Your task to perform on an android device: open app "HBO Max: Stream TV & Movies" (install if not already installed) and enter user name: "faring@outlook.com" and password: "appropriately" Image 0: 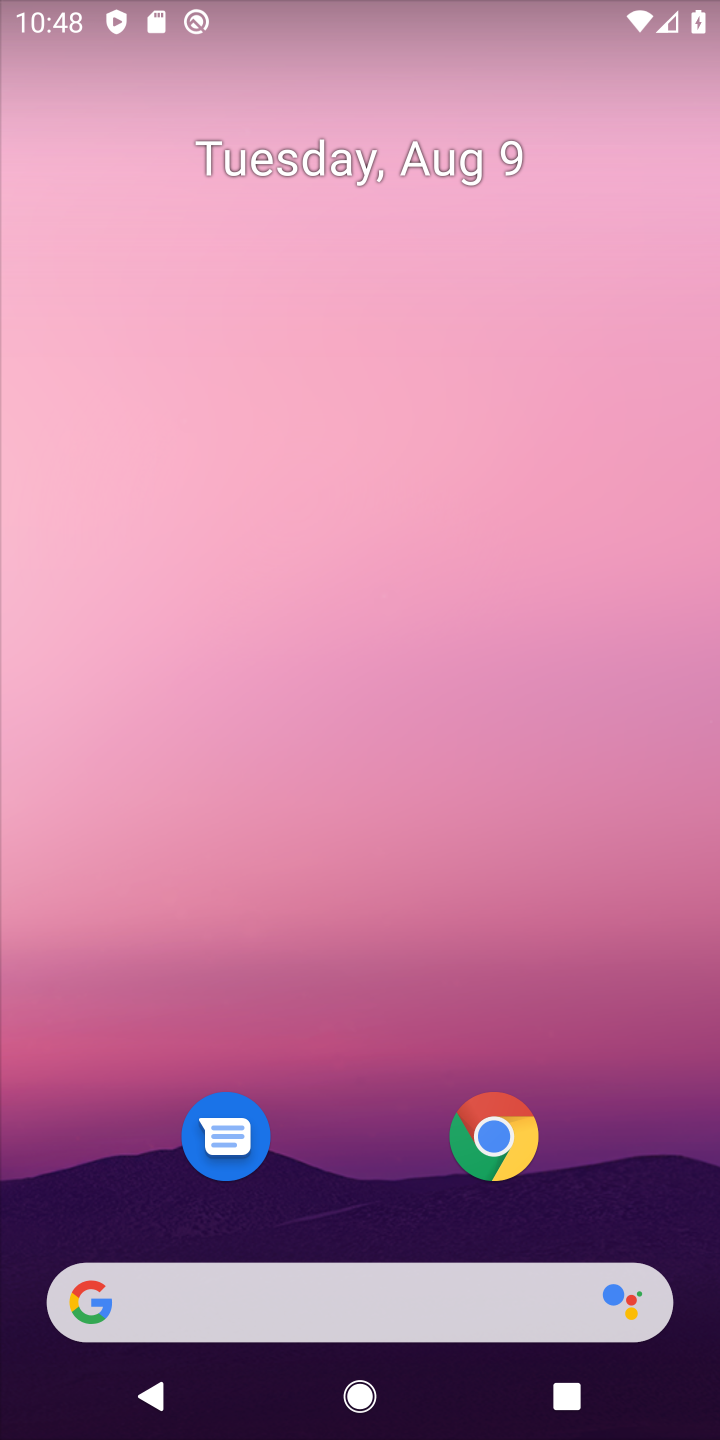
Step 0: press home button
Your task to perform on an android device: open app "HBO Max: Stream TV & Movies" (install if not already installed) and enter user name: "faring@outlook.com" and password: "appropriately" Image 1: 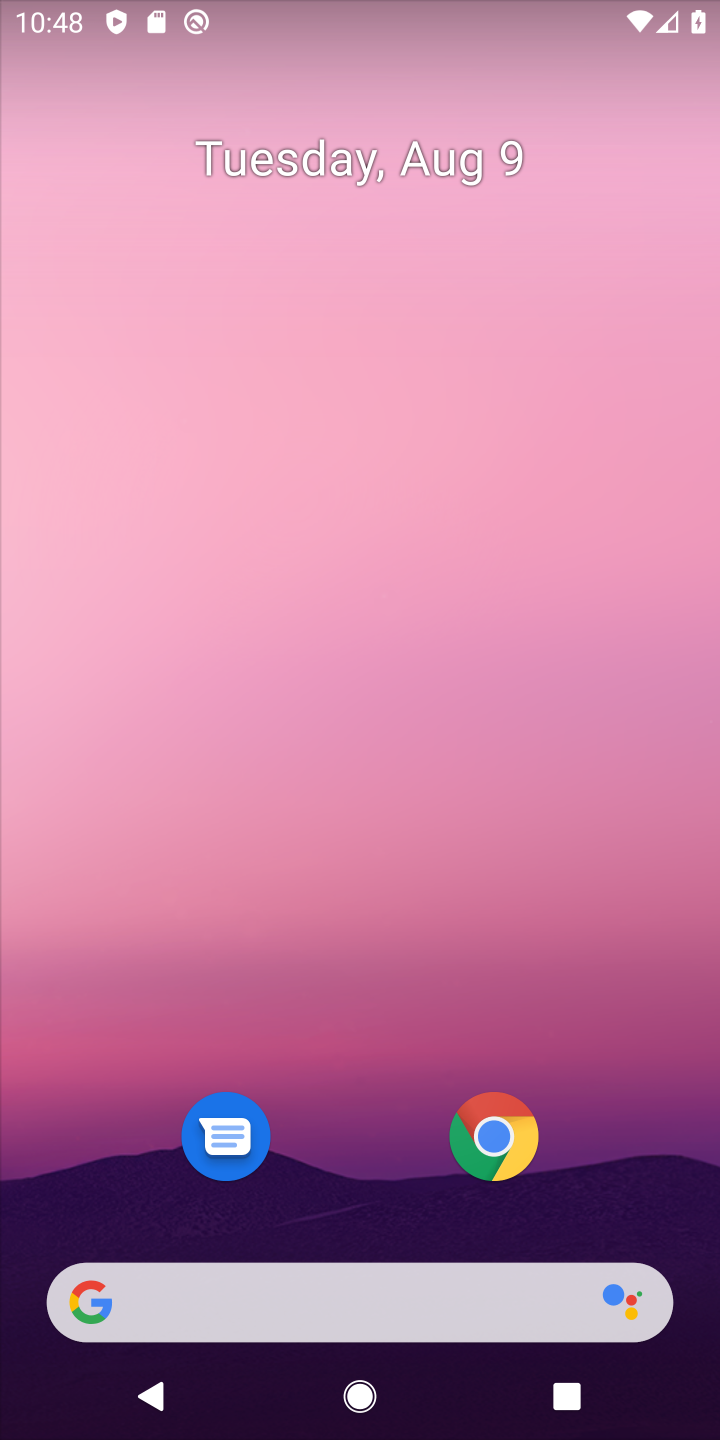
Step 1: drag from (355, 1199) to (408, 222)
Your task to perform on an android device: open app "HBO Max: Stream TV & Movies" (install if not already installed) and enter user name: "faring@outlook.com" and password: "appropriately" Image 2: 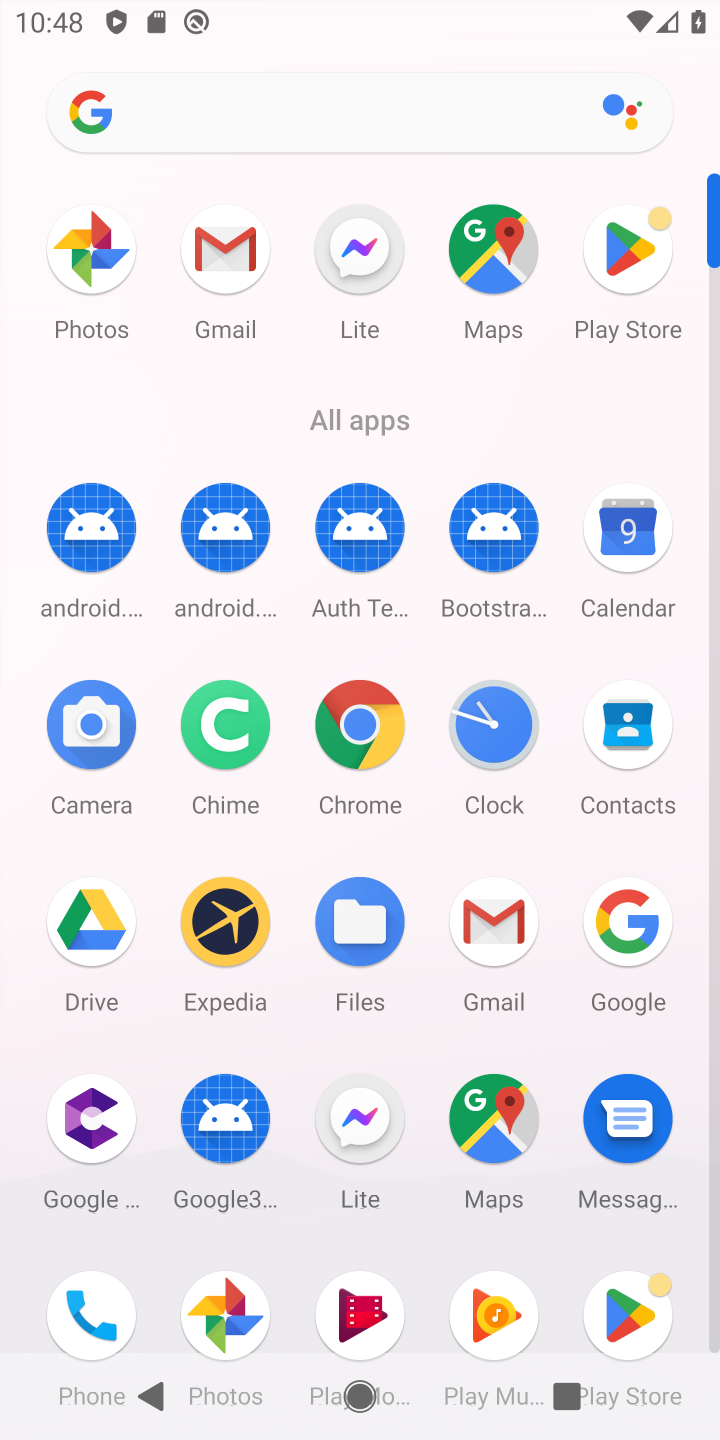
Step 2: click (645, 284)
Your task to perform on an android device: open app "HBO Max: Stream TV & Movies" (install if not already installed) and enter user name: "faring@outlook.com" and password: "appropriately" Image 3: 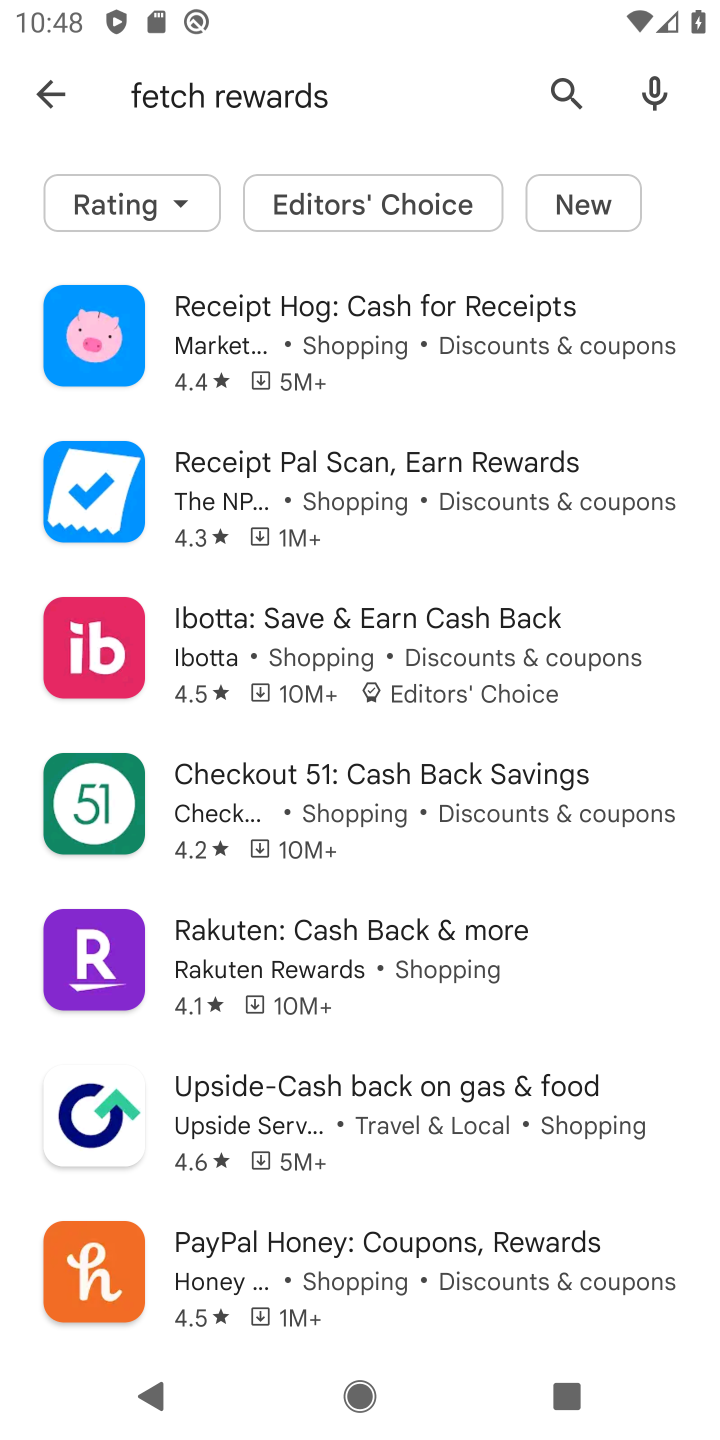
Step 3: click (297, 100)
Your task to perform on an android device: open app "HBO Max: Stream TV & Movies" (install if not already installed) and enter user name: "faring@outlook.com" and password: "appropriately" Image 4: 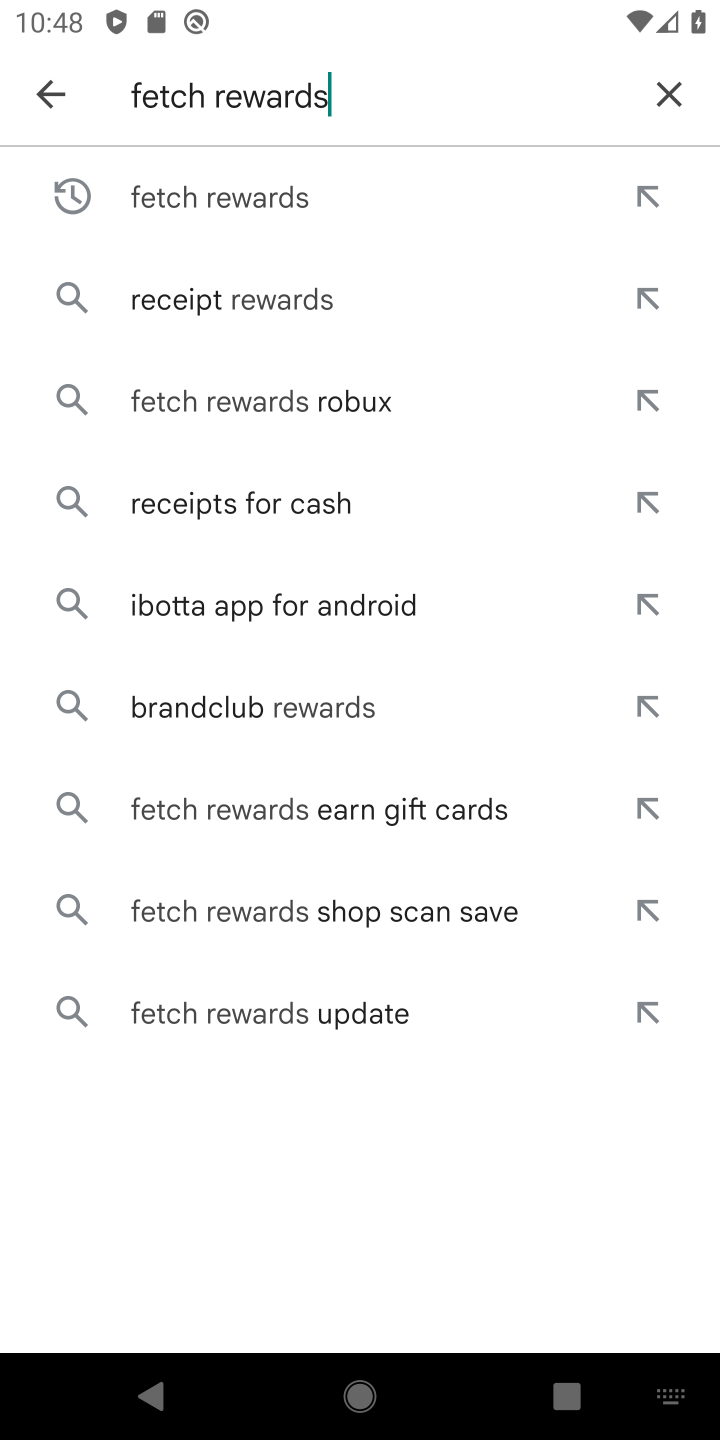
Step 4: click (667, 81)
Your task to perform on an android device: open app "HBO Max: Stream TV & Movies" (install if not already installed) and enter user name: "faring@outlook.com" and password: "appropriately" Image 5: 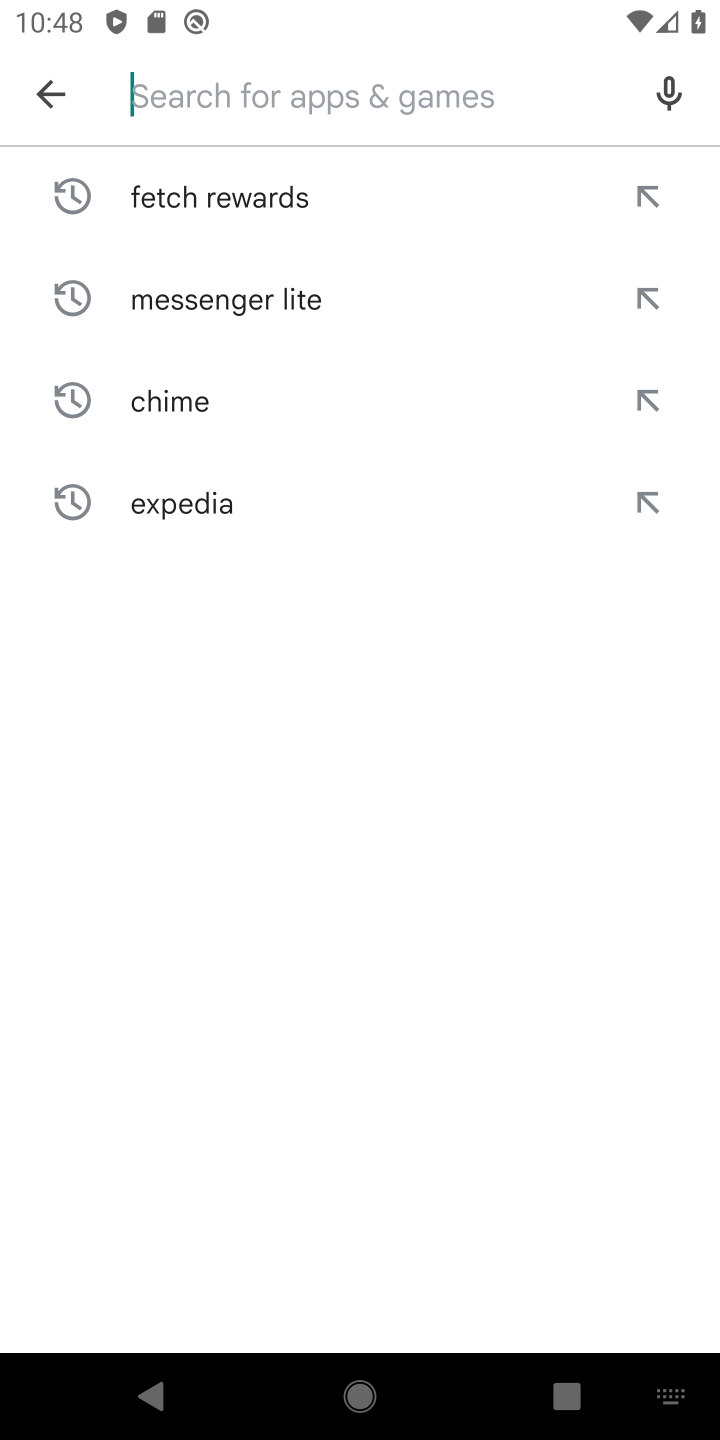
Step 5: type "HBO Max"
Your task to perform on an android device: open app "HBO Max: Stream TV & Movies" (install if not already installed) and enter user name: "faring@outlook.com" and password: "appropriately" Image 6: 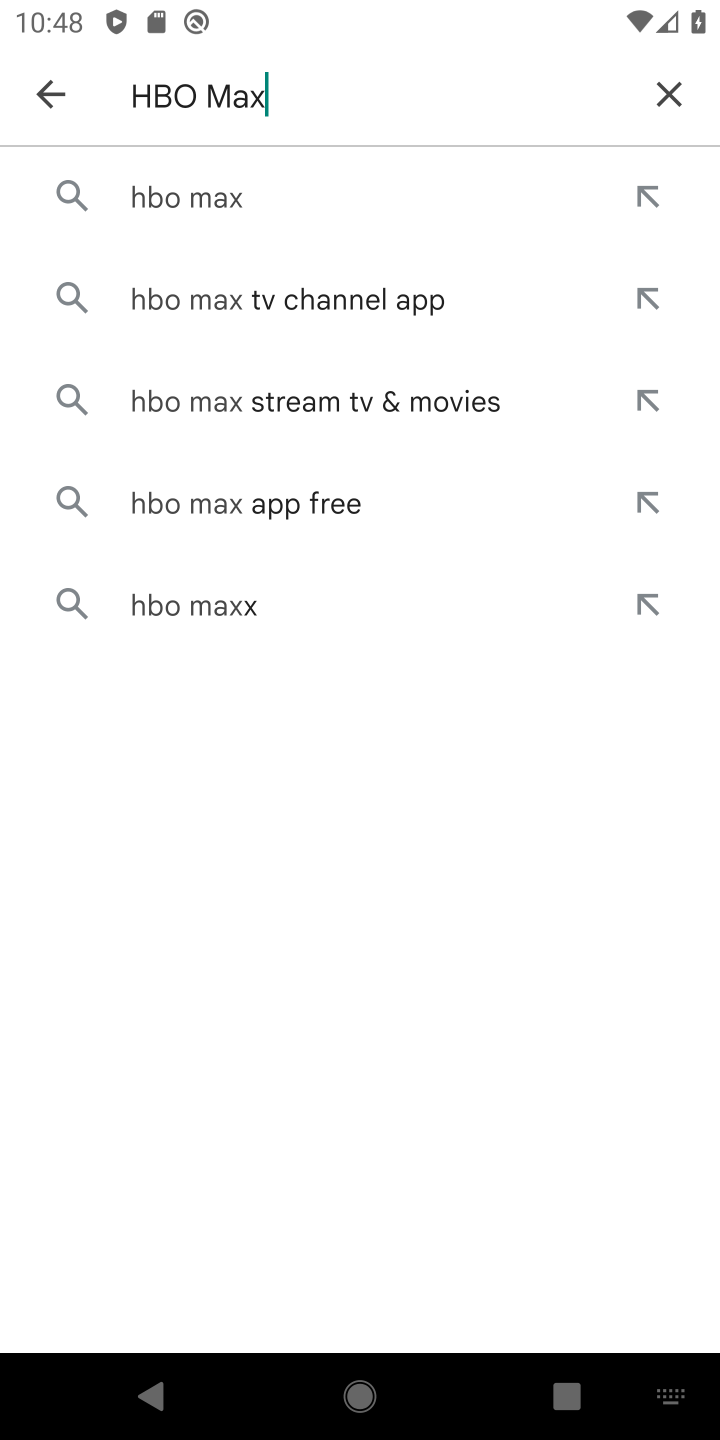
Step 6: click (279, 411)
Your task to perform on an android device: open app "HBO Max: Stream TV & Movies" (install if not already installed) and enter user name: "faring@outlook.com" and password: "appropriately" Image 7: 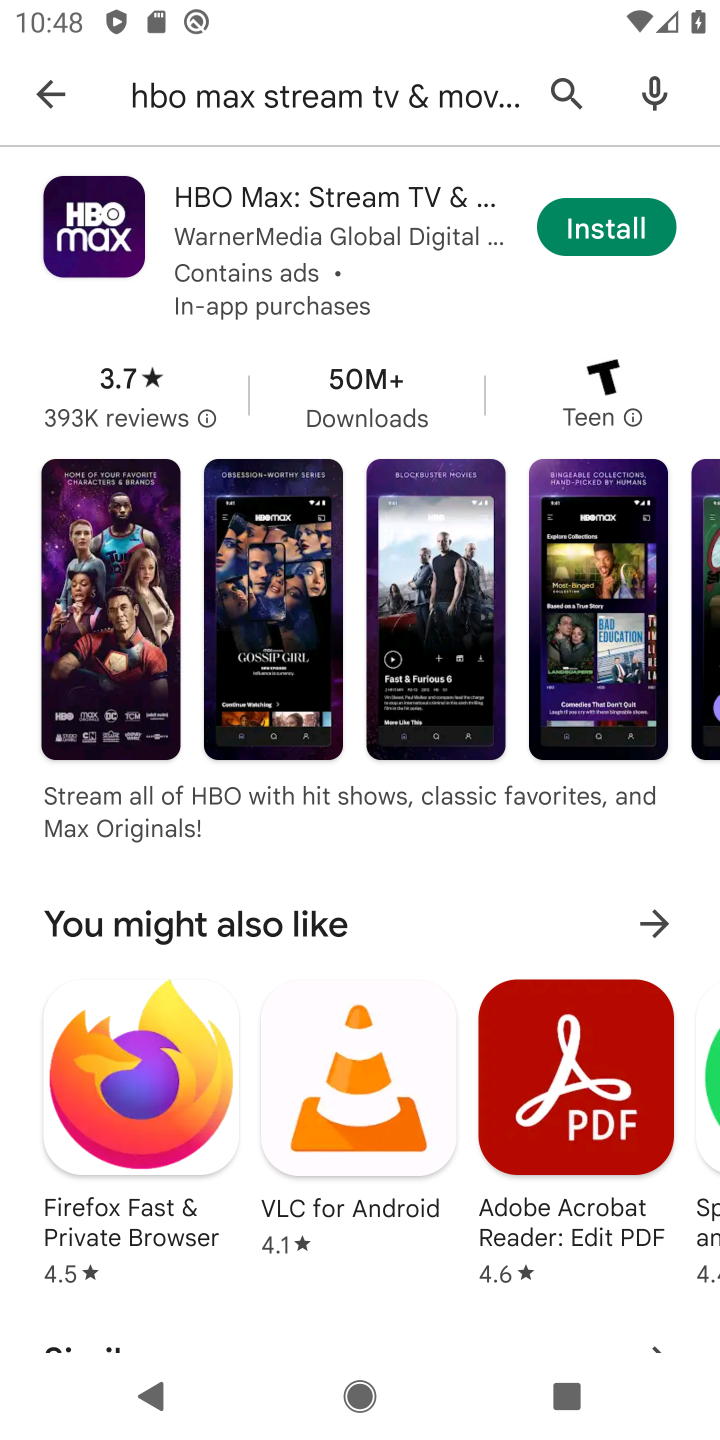
Step 7: click (596, 225)
Your task to perform on an android device: open app "HBO Max: Stream TV & Movies" (install if not already installed) and enter user name: "faring@outlook.com" and password: "appropriately" Image 8: 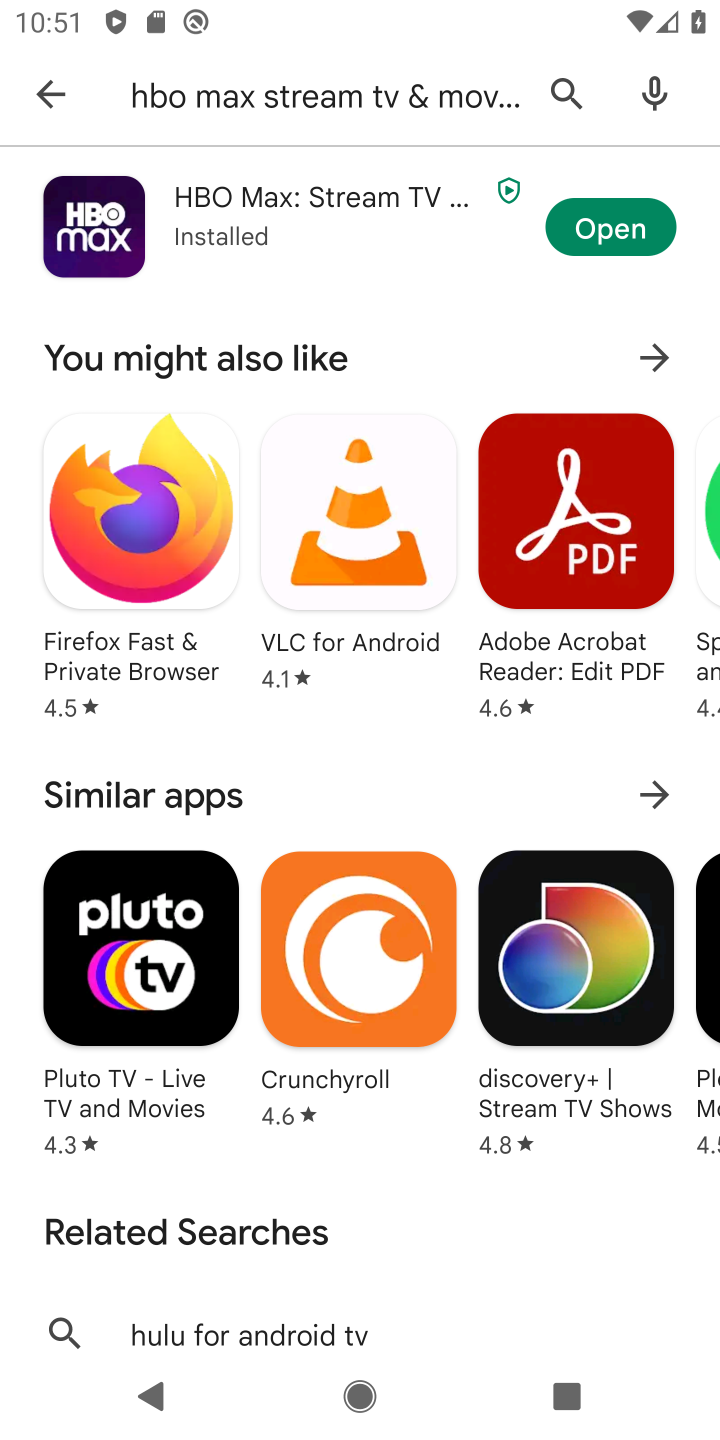
Step 8: click (648, 237)
Your task to perform on an android device: open app "HBO Max: Stream TV & Movies" (install if not already installed) and enter user name: "faring@outlook.com" and password: "appropriately" Image 9: 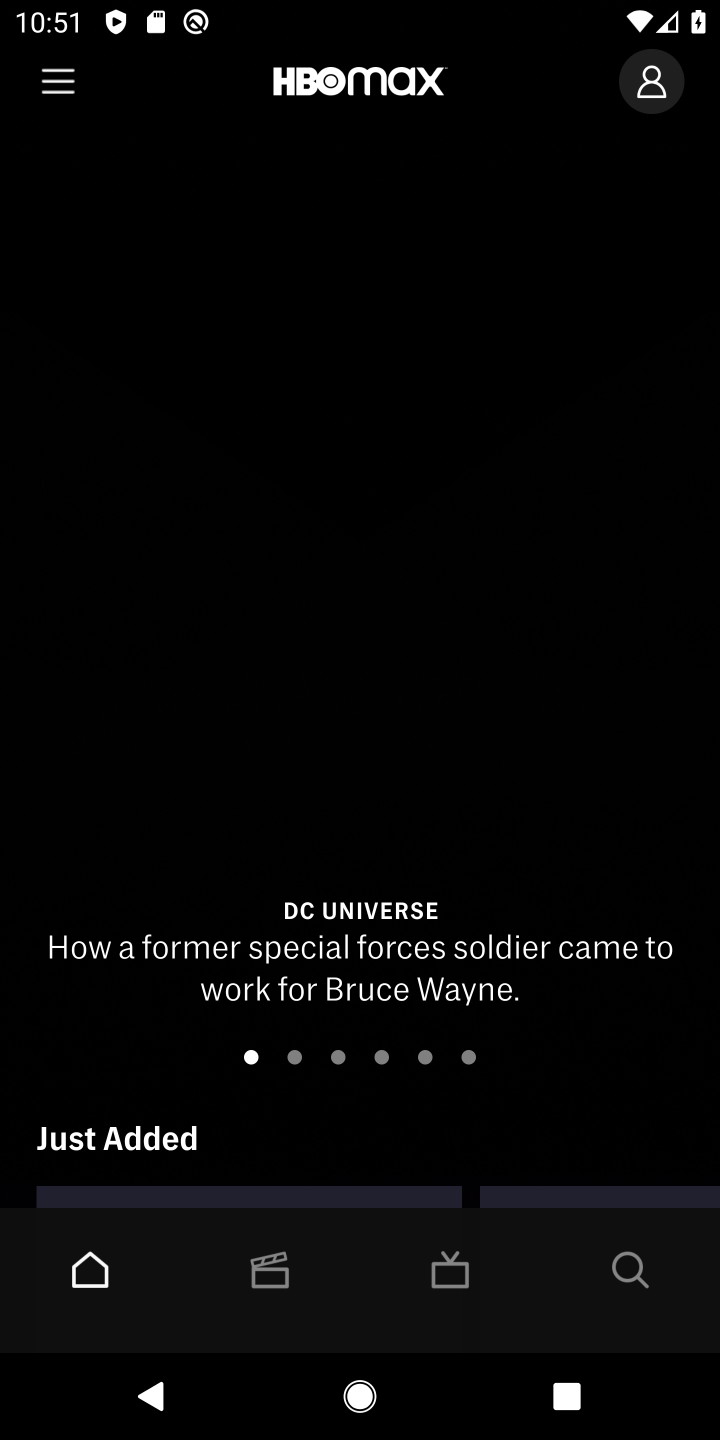
Step 9: drag from (380, 1088) to (411, 703)
Your task to perform on an android device: open app "HBO Max: Stream TV & Movies" (install if not already installed) and enter user name: "faring@outlook.com" and password: "appropriately" Image 10: 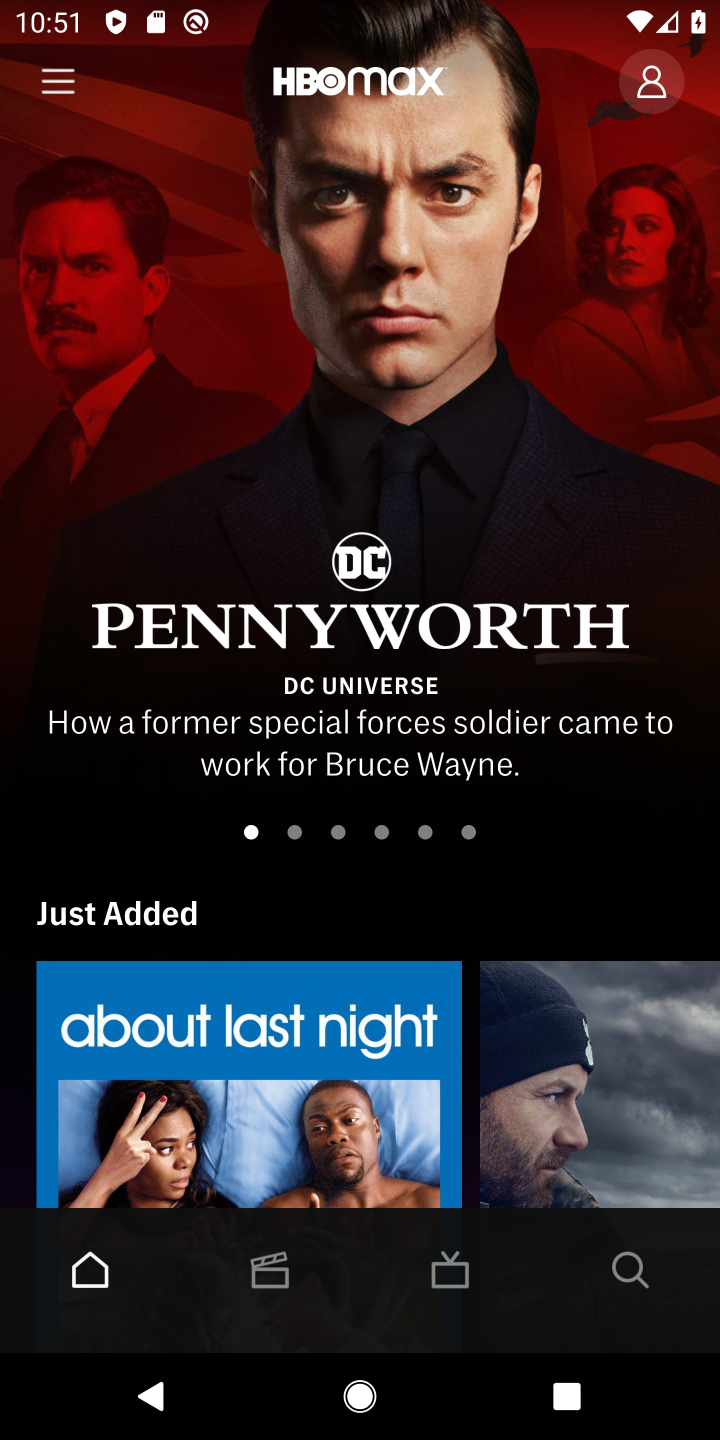
Step 10: click (661, 83)
Your task to perform on an android device: open app "HBO Max: Stream TV & Movies" (install if not already installed) and enter user name: "faring@outlook.com" and password: "appropriately" Image 11: 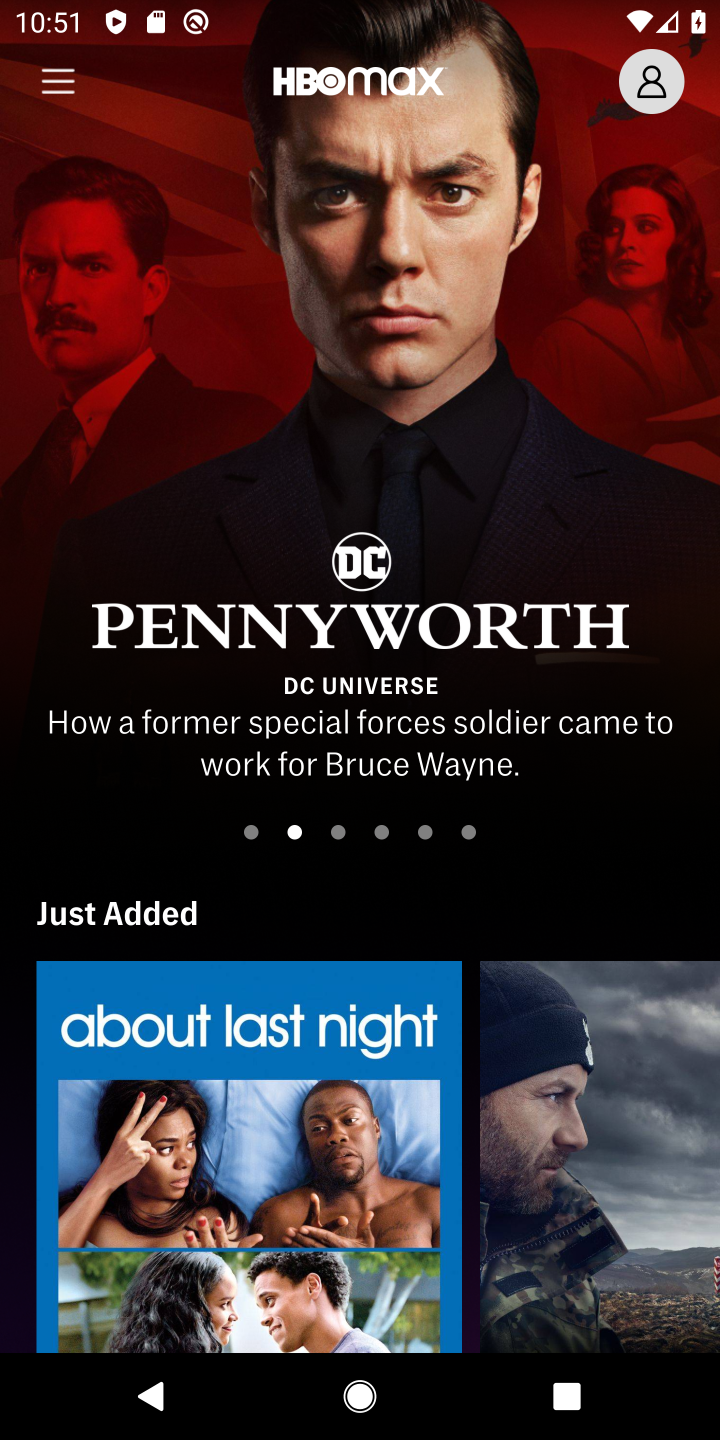
Step 11: click (663, 77)
Your task to perform on an android device: open app "HBO Max: Stream TV & Movies" (install if not already installed) and enter user name: "faring@outlook.com" and password: "appropriately" Image 12: 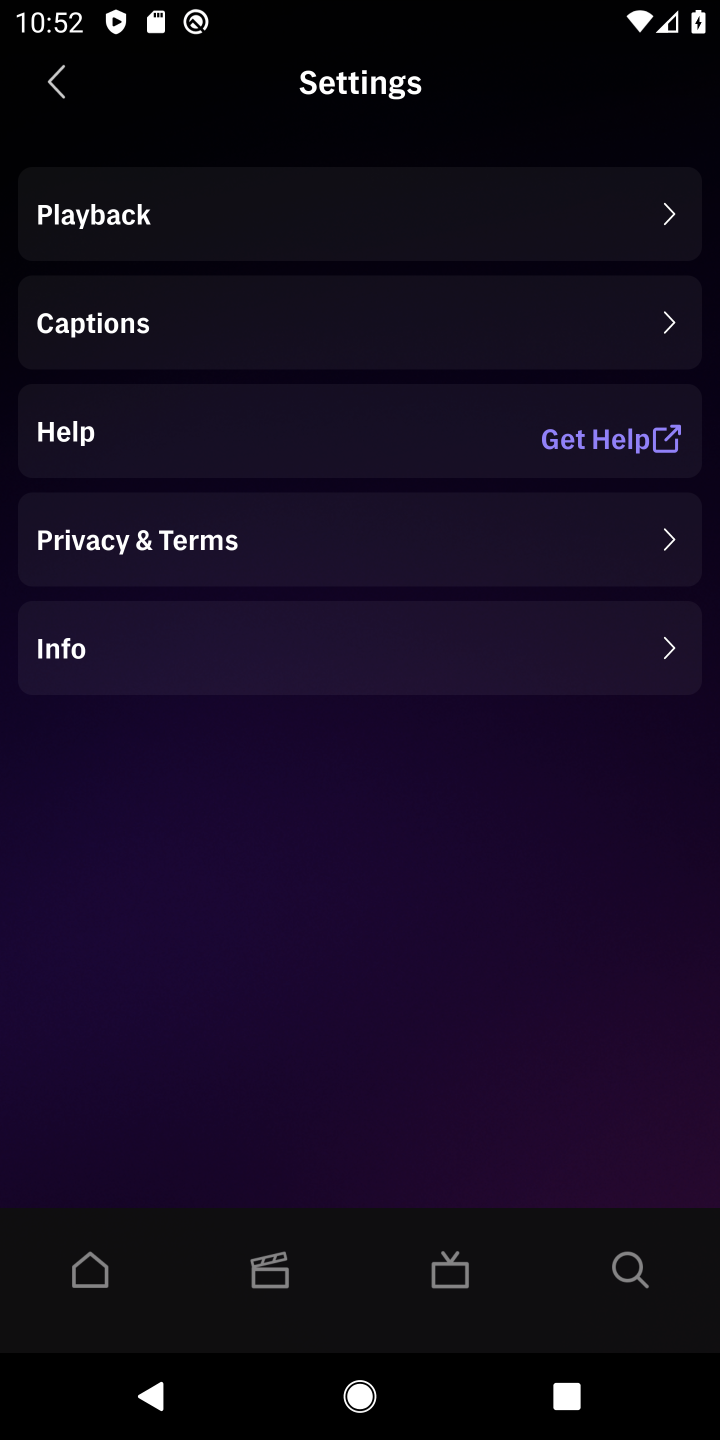
Step 12: click (58, 78)
Your task to perform on an android device: open app "HBO Max: Stream TV & Movies" (install if not already installed) and enter user name: "faring@outlook.com" and password: "appropriately" Image 13: 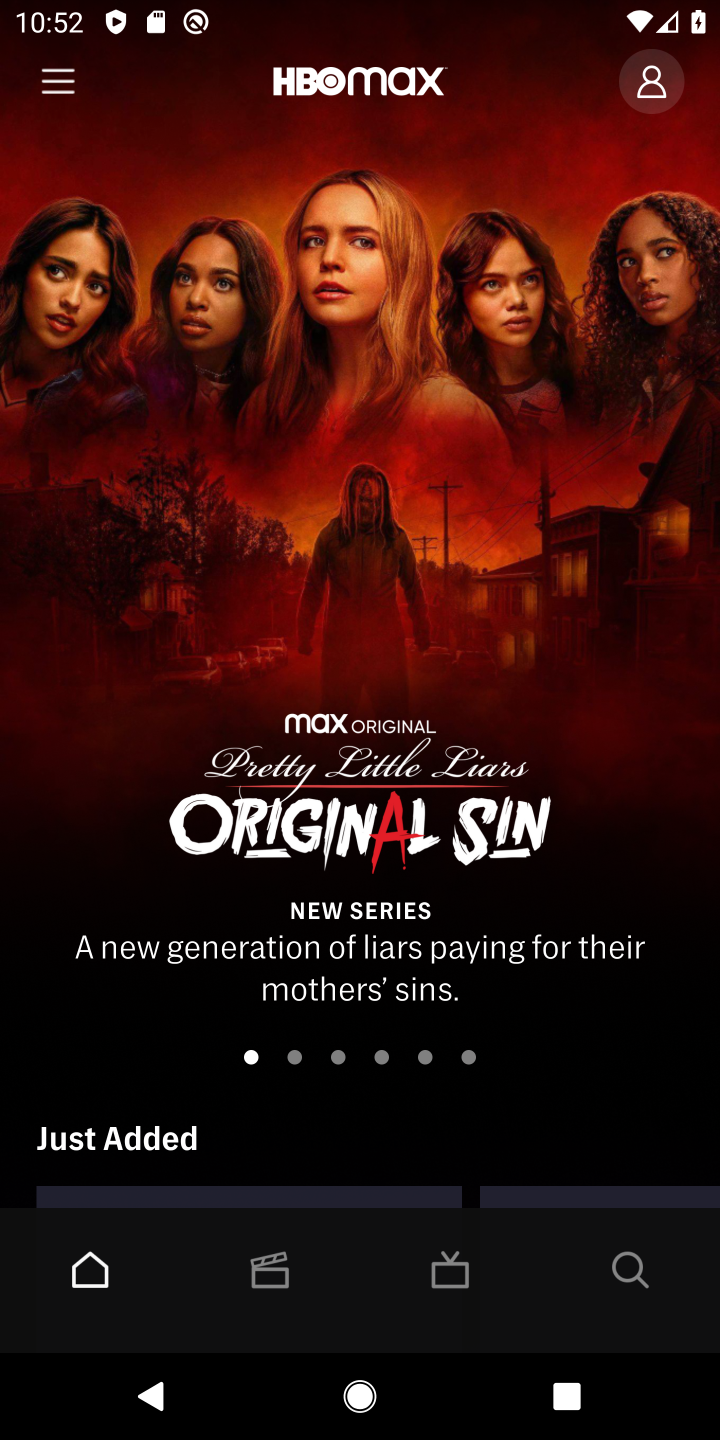
Step 13: click (48, 72)
Your task to perform on an android device: open app "HBO Max: Stream TV & Movies" (install if not already installed) and enter user name: "faring@outlook.com" and password: "appropriately" Image 14: 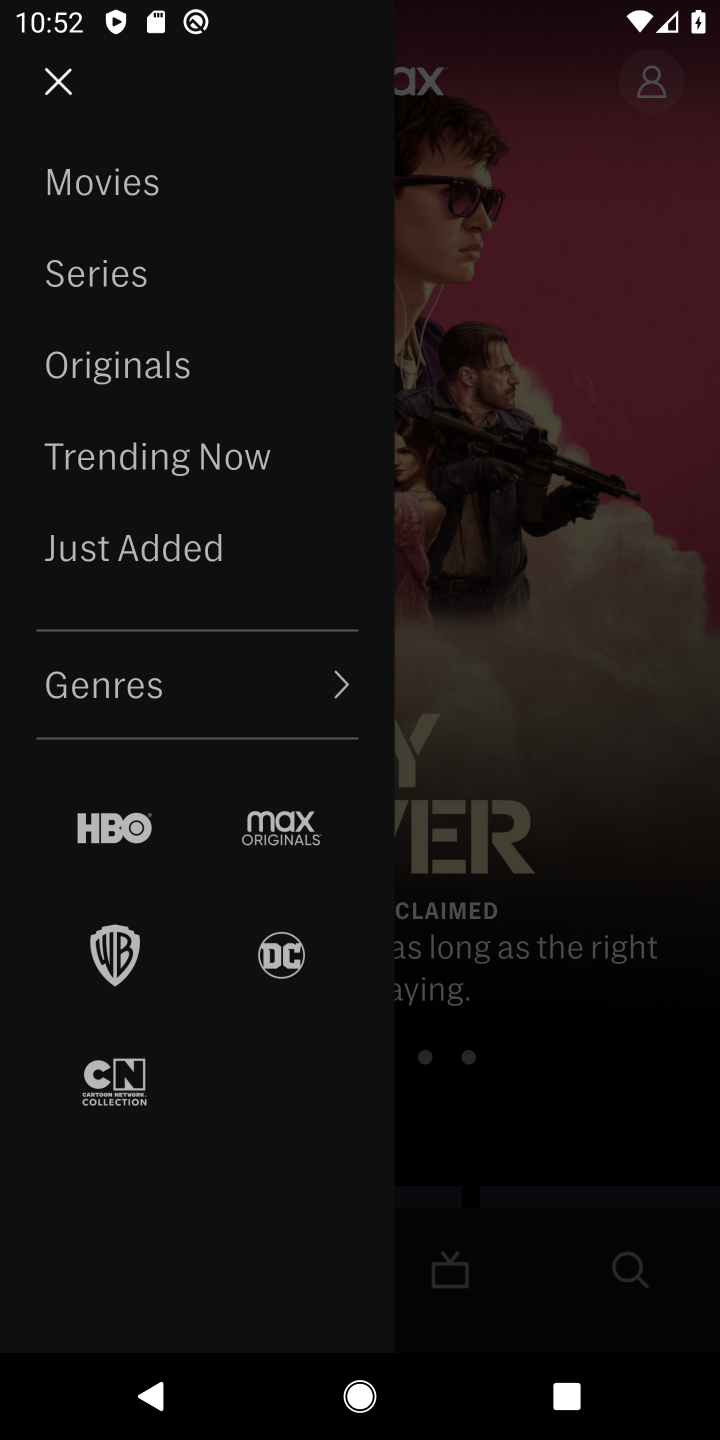
Step 14: task complete